Your task to perform on an android device: Check the weather Image 0: 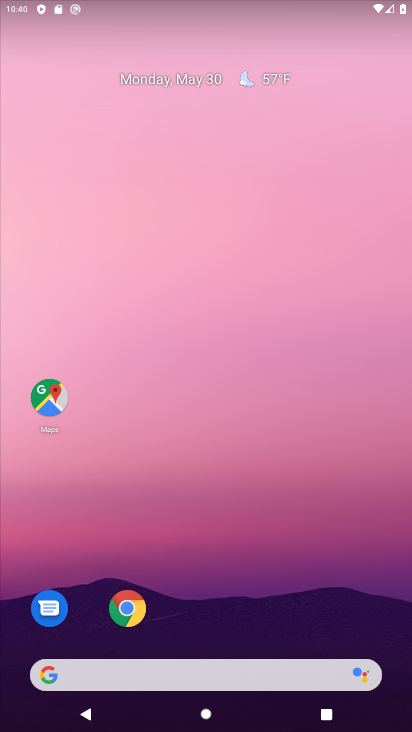
Step 0: drag from (259, 557) to (236, 1)
Your task to perform on an android device: Check the weather Image 1: 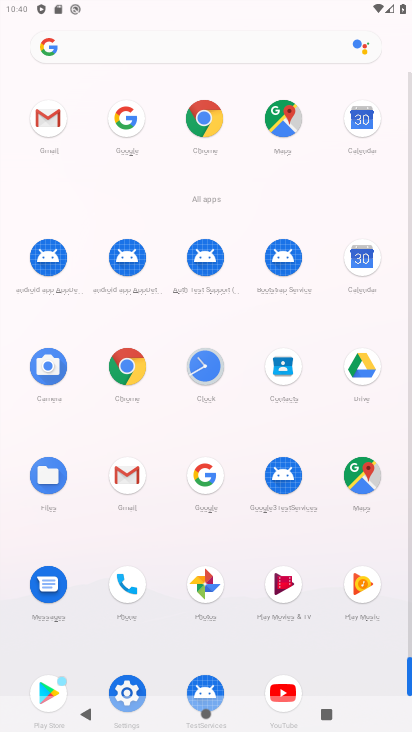
Step 1: click (124, 361)
Your task to perform on an android device: Check the weather Image 2: 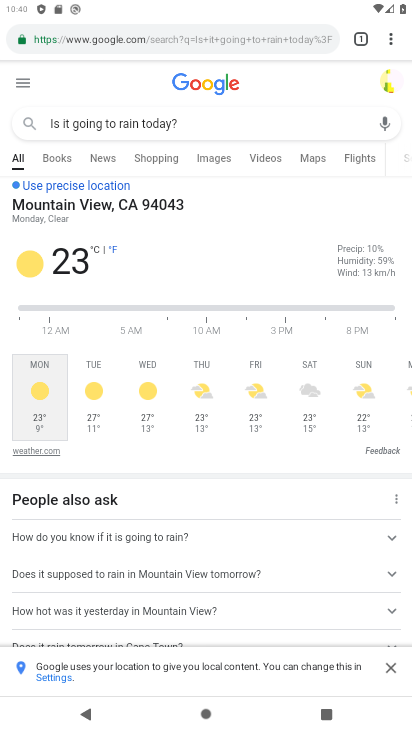
Step 2: click (227, 39)
Your task to perform on an android device: Check the weather Image 3: 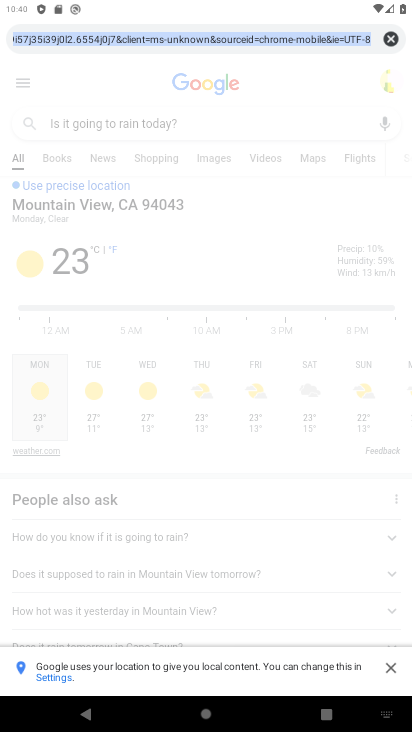
Step 3: click (386, 36)
Your task to perform on an android device: Check the weather Image 4: 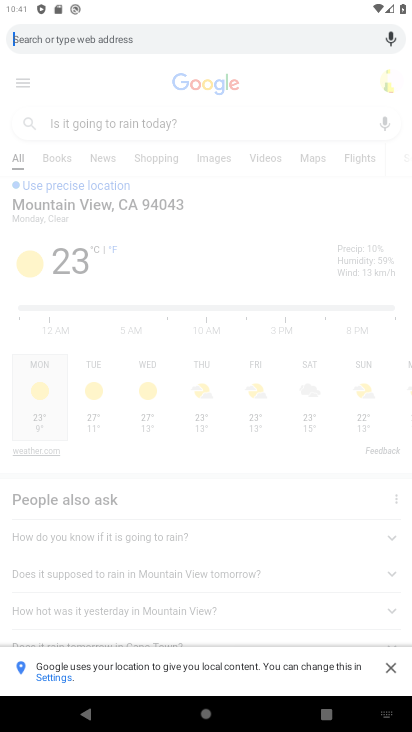
Step 4: type "Check the weather"
Your task to perform on an android device: Check the weather Image 5: 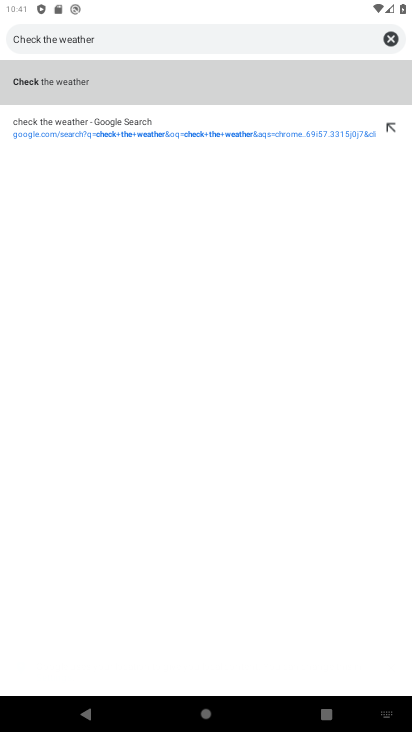
Step 5: click (75, 79)
Your task to perform on an android device: Check the weather Image 6: 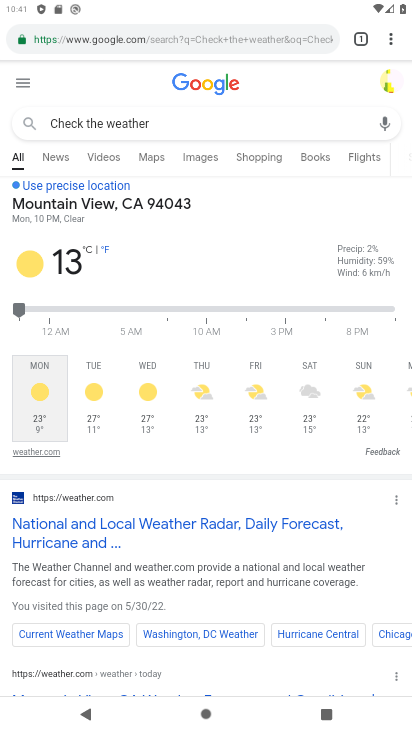
Step 6: task complete